Your task to perform on an android device: add a contact Image 0: 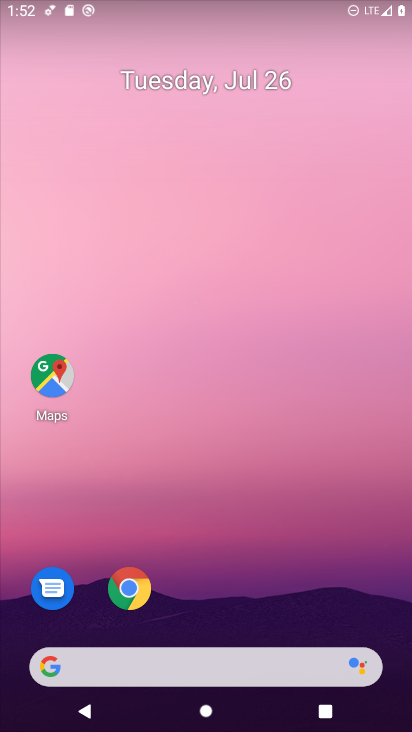
Step 0: drag from (230, 632) to (384, 422)
Your task to perform on an android device: add a contact Image 1: 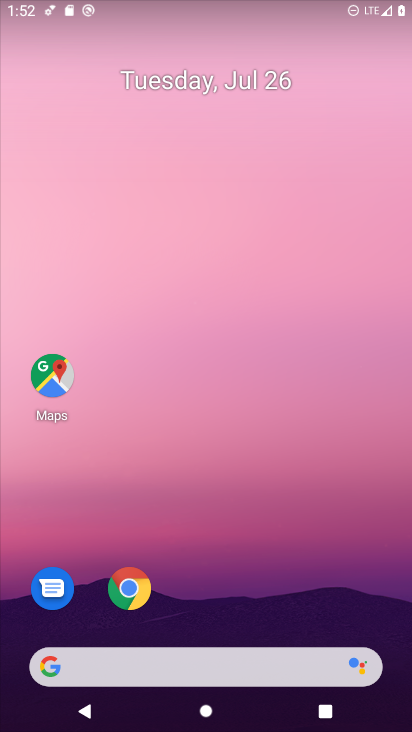
Step 1: drag from (249, 656) to (205, 71)
Your task to perform on an android device: add a contact Image 2: 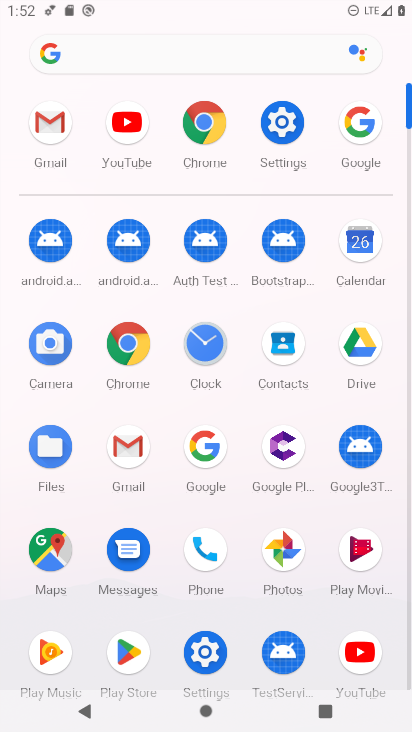
Step 2: click (198, 551)
Your task to perform on an android device: add a contact Image 3: 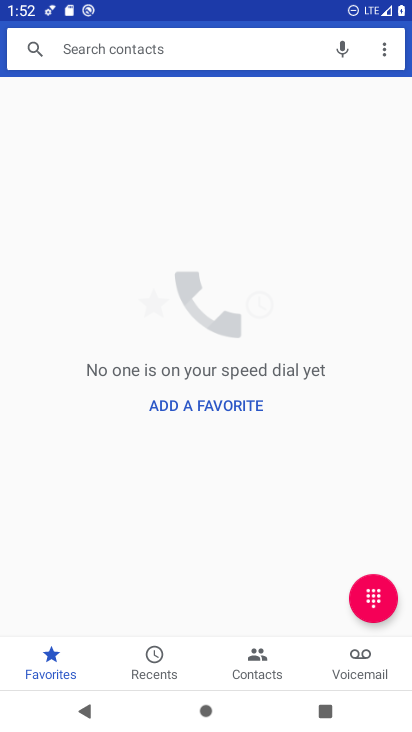
Step 3: click (270, 671)
Your task to perform on an android device: add a contact Image 4: 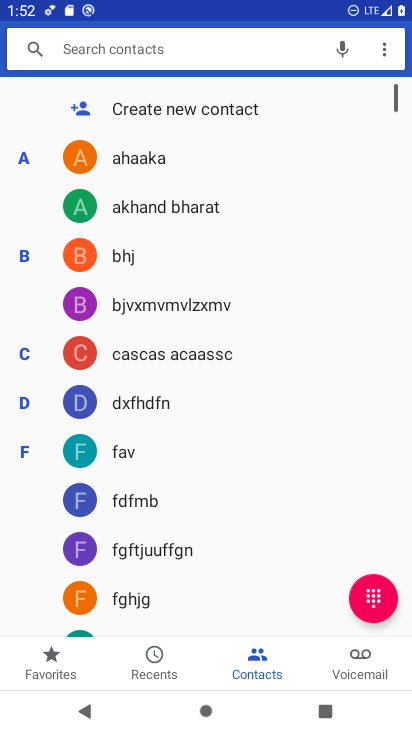
Step 4: click (134, 107)
Your task to perform on an android device: add a contact Image 5: 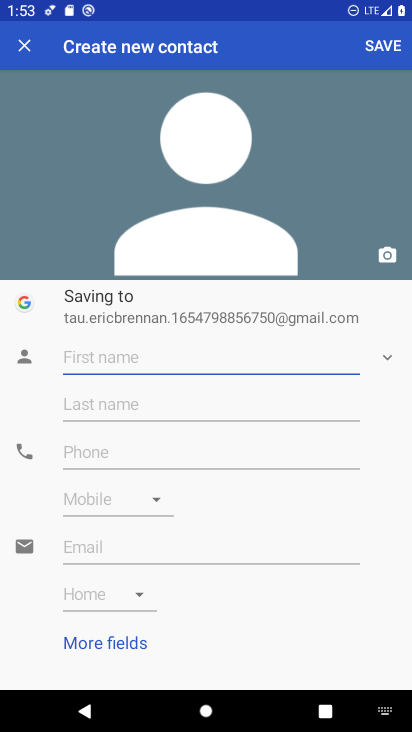
Step 5: type "mm"
Your task to perform on an android device: add a contact Image 6: 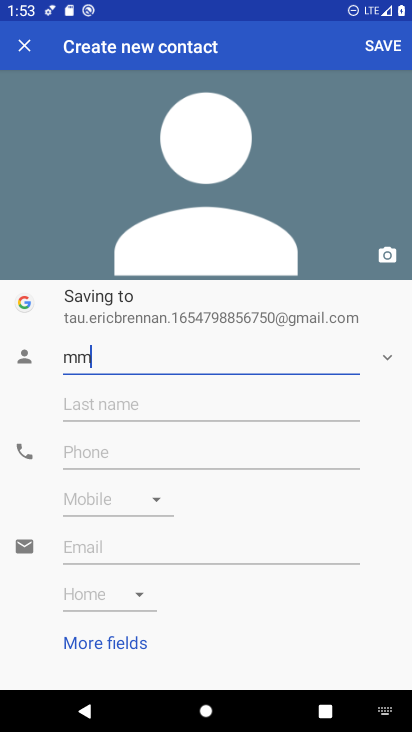
Step 6: click (204, 462)
Your task to perform on an android device: add a contact Image 7: 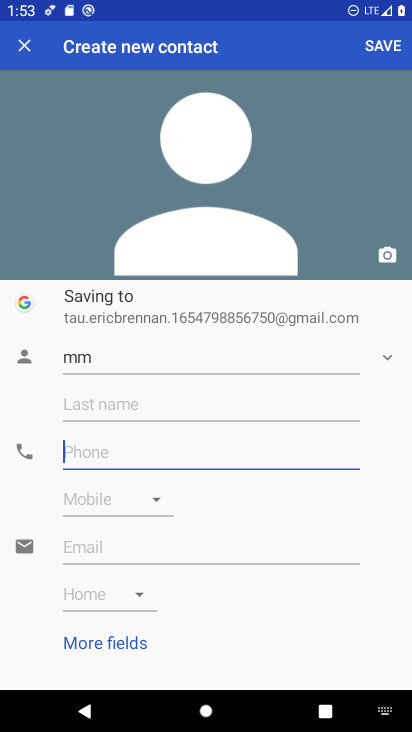
Step 7: type "888"
Your task to perform on an android device: add a contact Image 8: 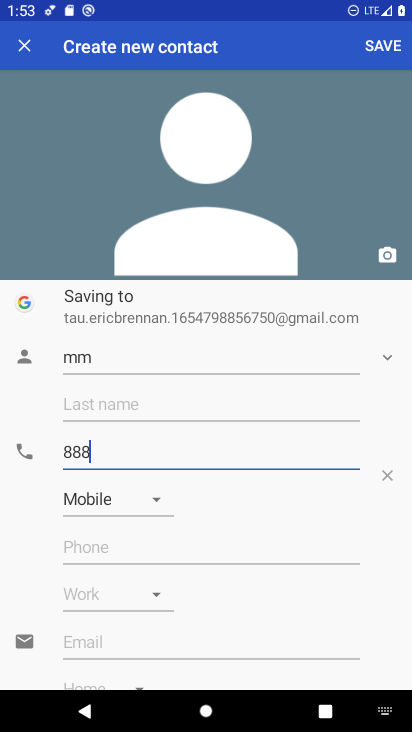
Step 8: click (374, 43)
Your task to perform on an android device: add a contact Image 9: 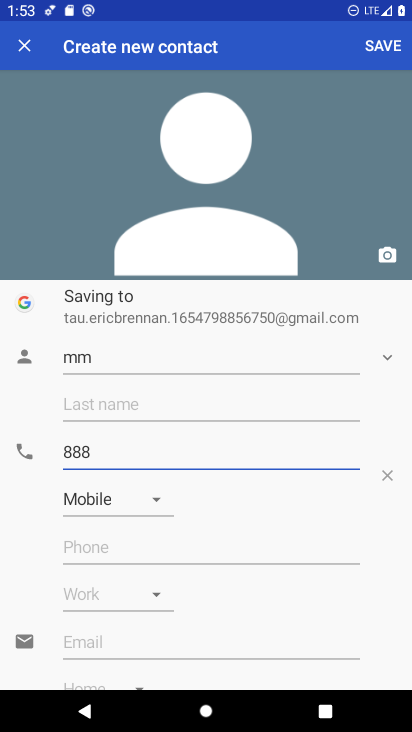
Step 9: task complete